Your task to perform on an android device: Is it going to rain today? Image 0: 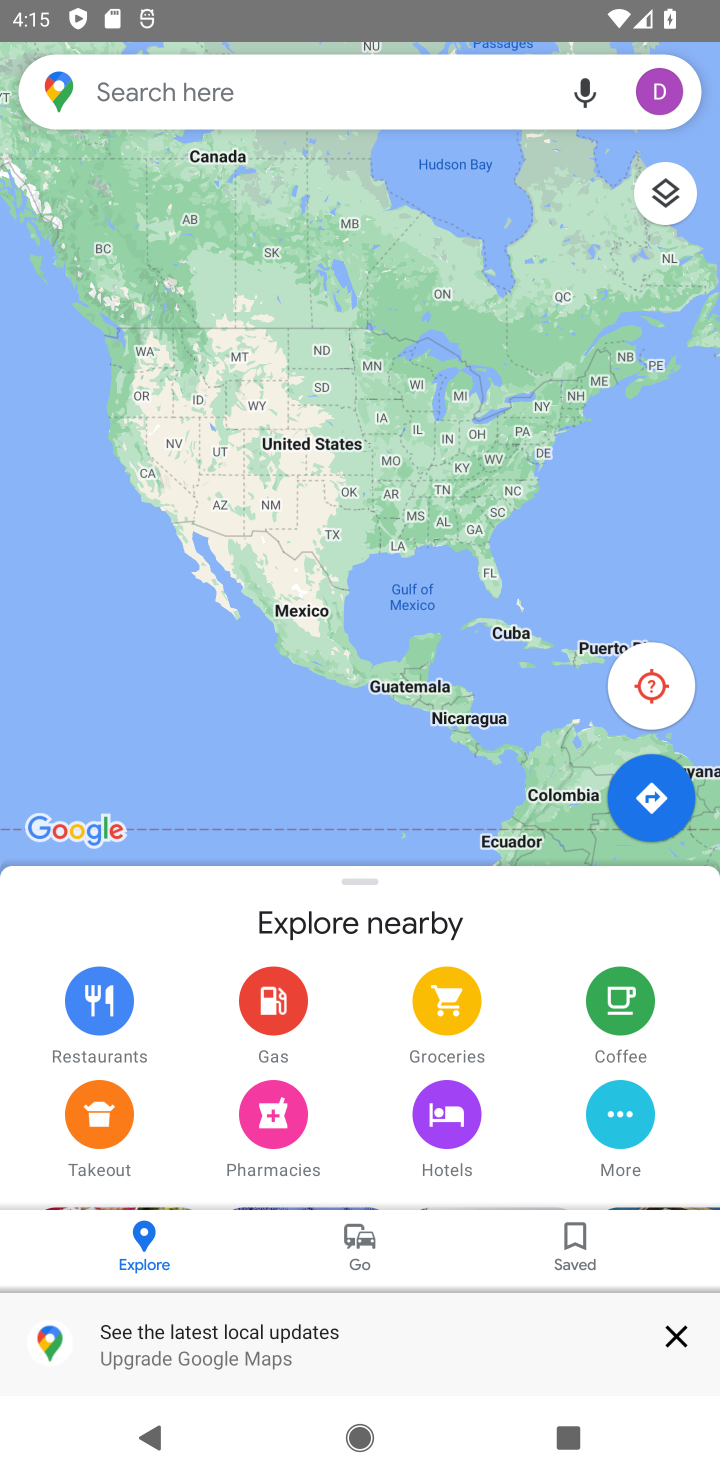
Step 0: press home button
Your task to perform on an android device: Is it going to rain today? Image 1: 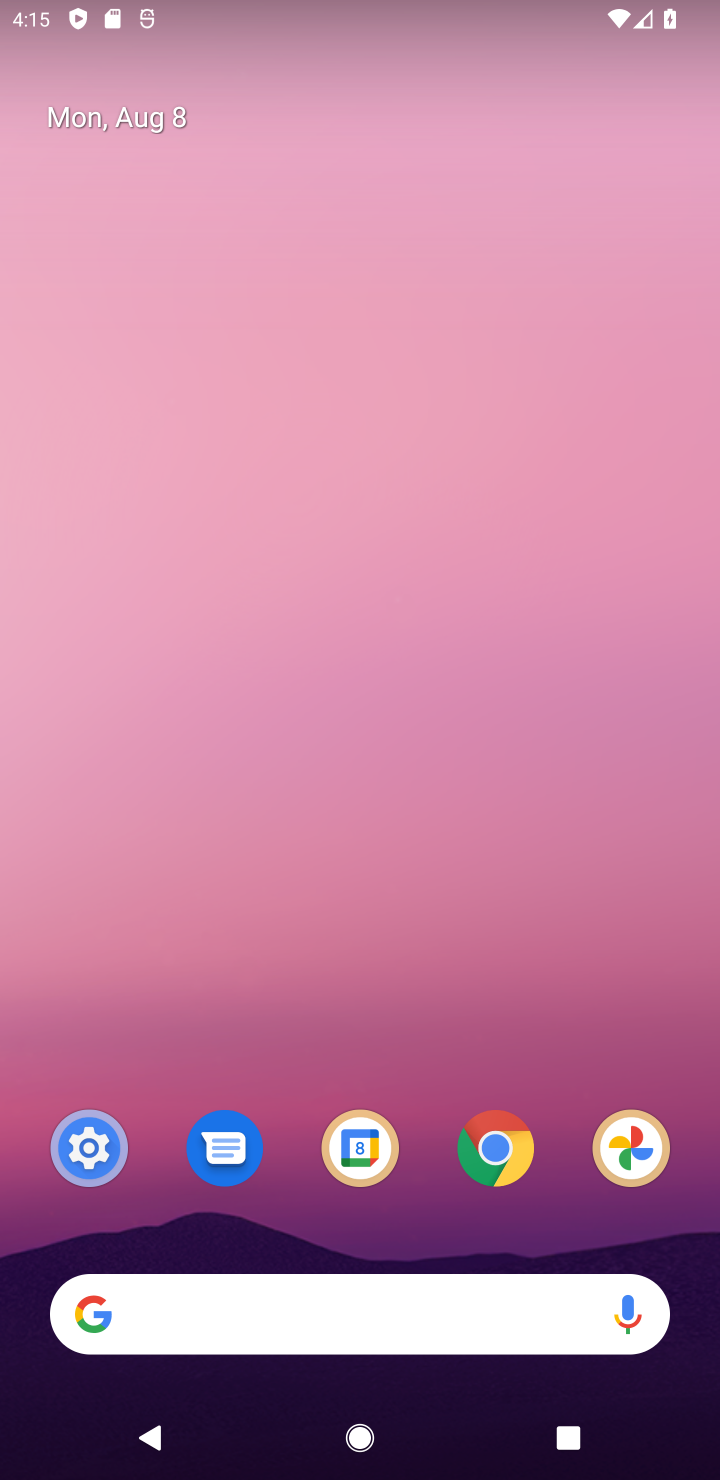
Step 1: drag from (244, 1178) to (196, 8)
Your task to perform on an android device: Is it going to rain today? Image 2: 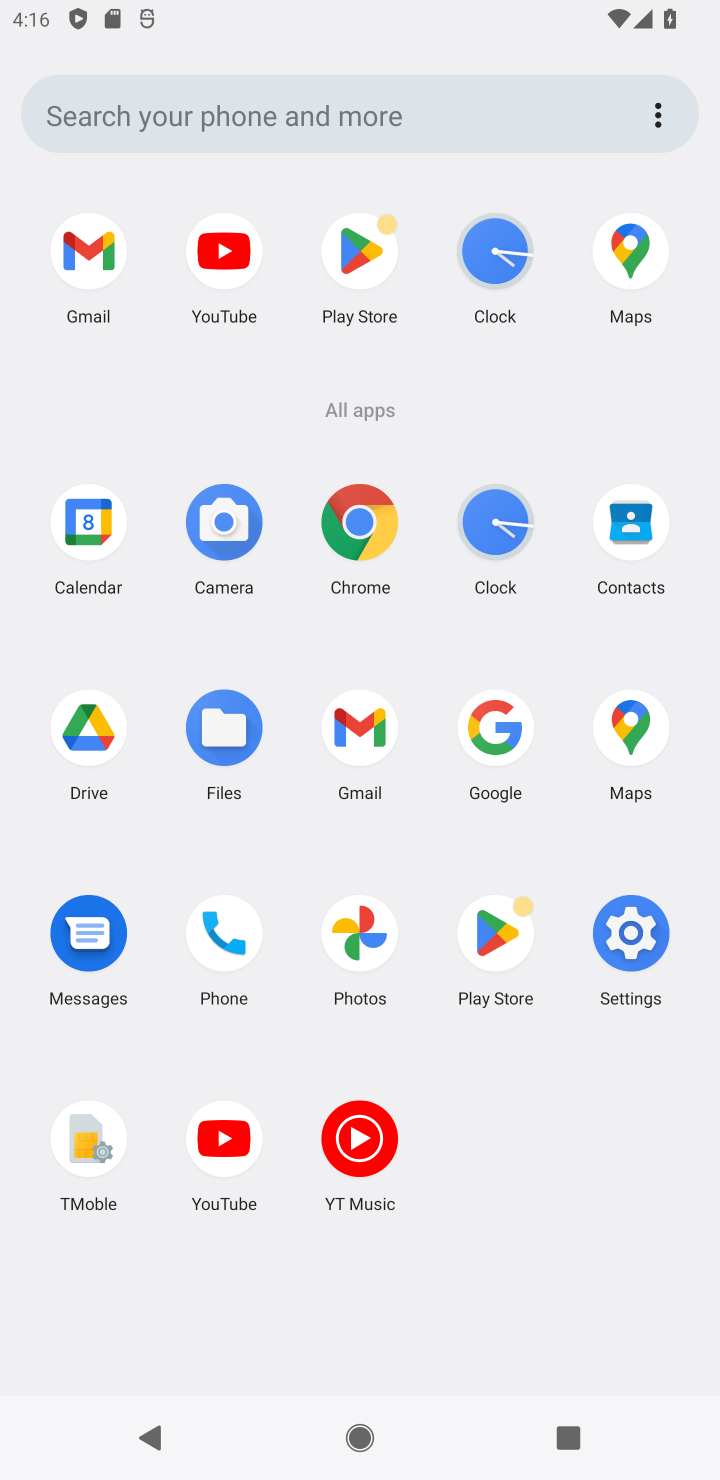
Step 2: click (522, 729)
Your task to perform on an android device: Is it going to rain today? Image 3: 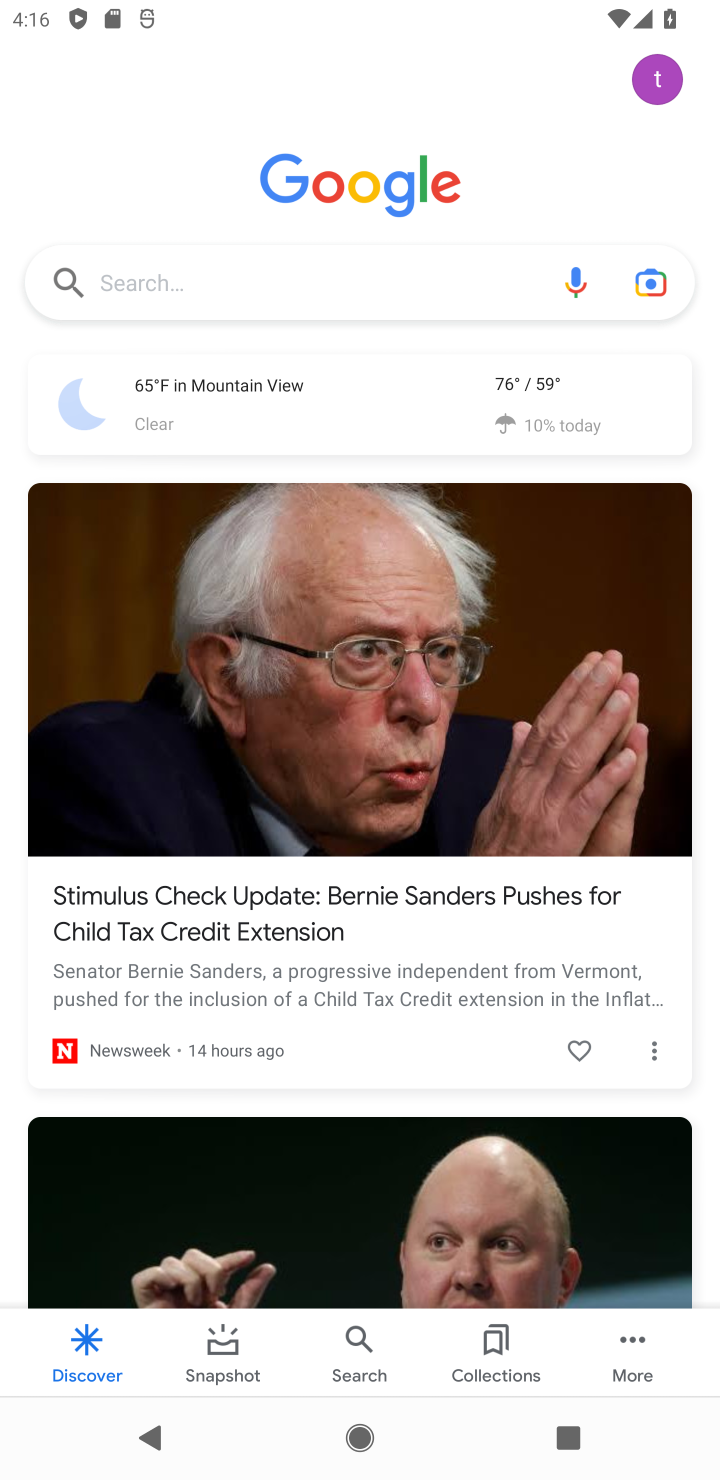
Step 3: click (190, 450)
Your task to perform on an android device: Is it going to rain today? Image 4: 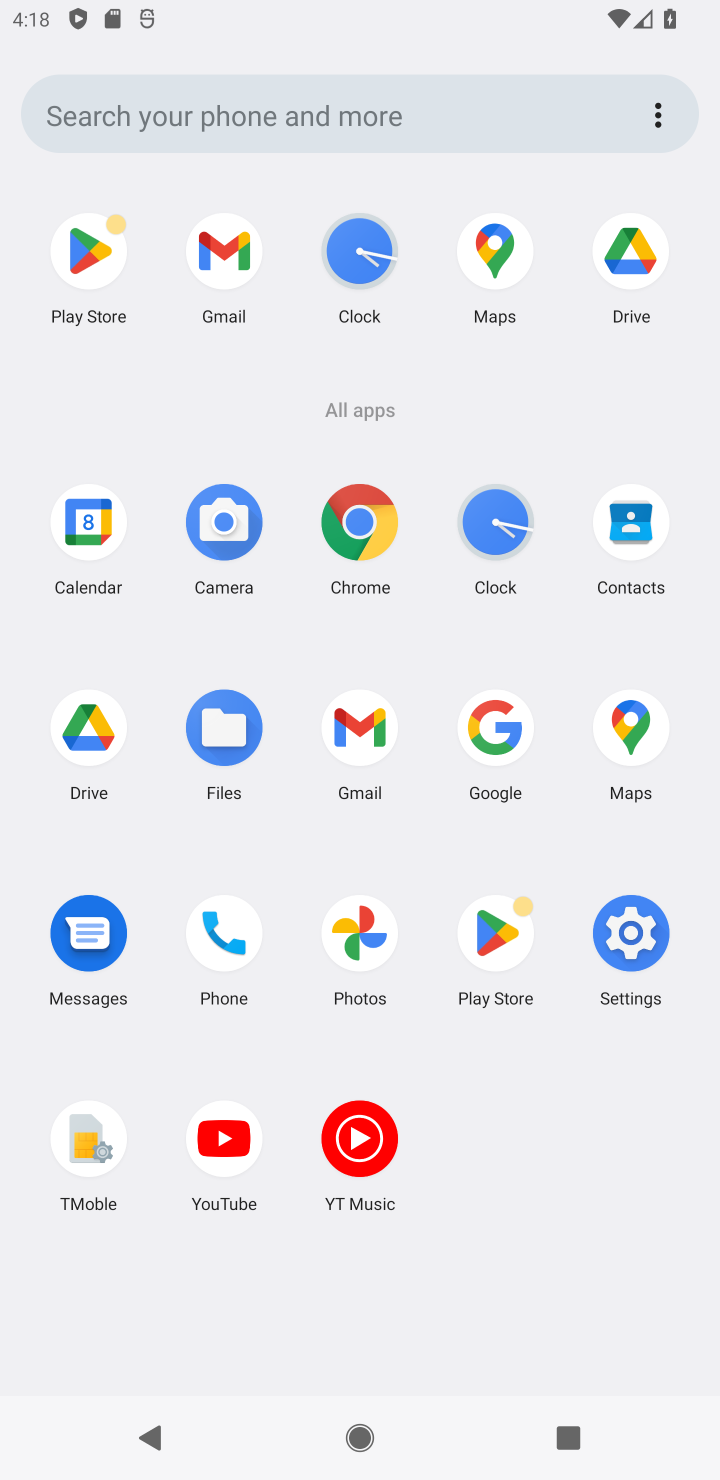
Step 4: click (481, 759)
Your task to perform on an android device: Is it going to rain today? Image 5: 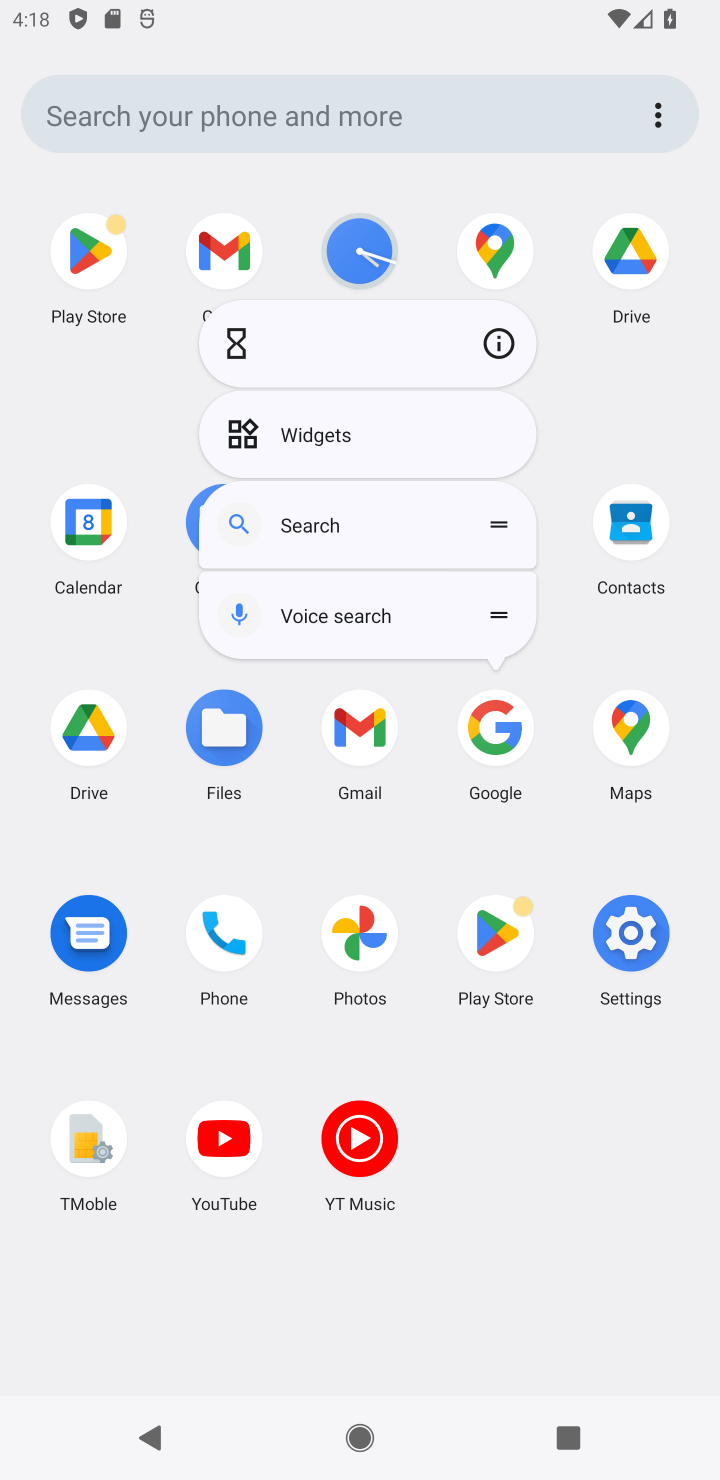
Step 5: click (488, 762)
Your task to perform on an android device: Is it going to rain today? Image 6: 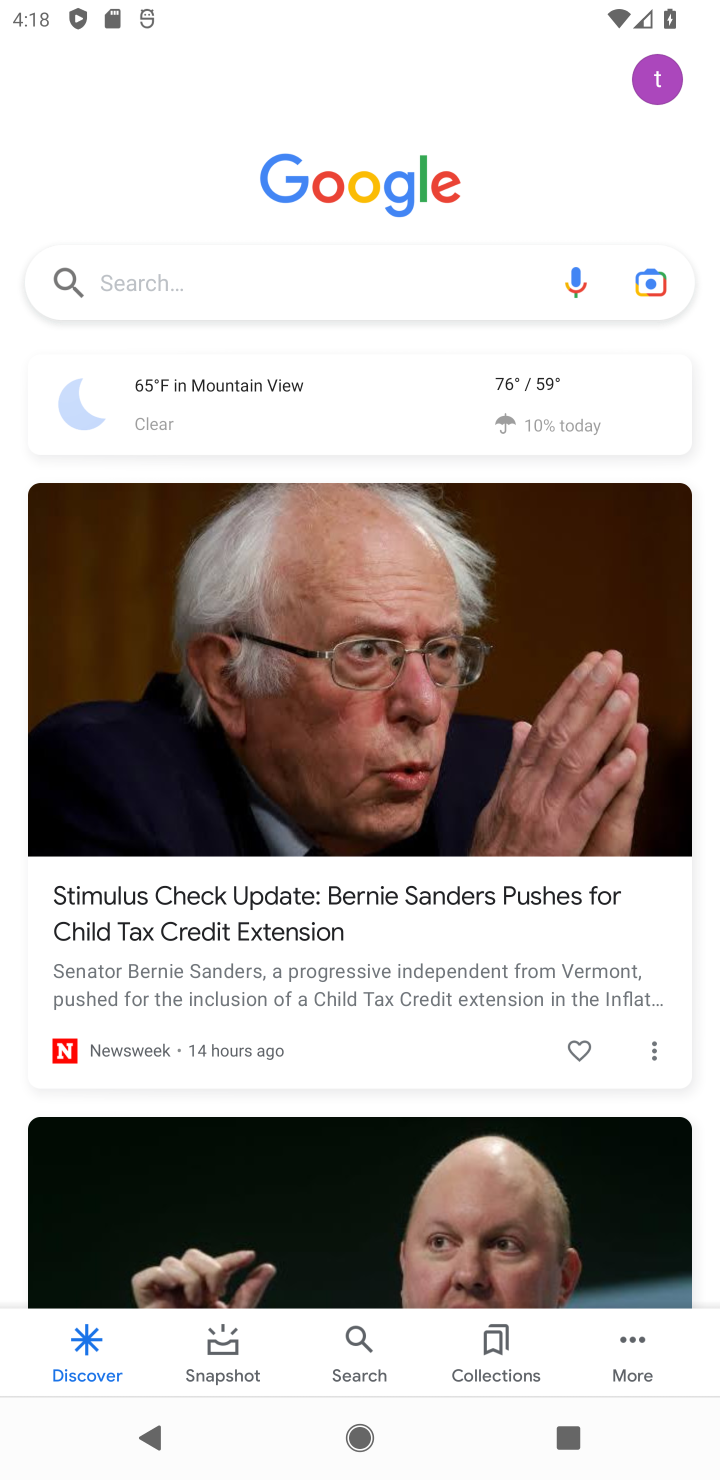
Step 6: click (129, 391)
Your task to perform on an android device: Is it going to rain today? Image 7: 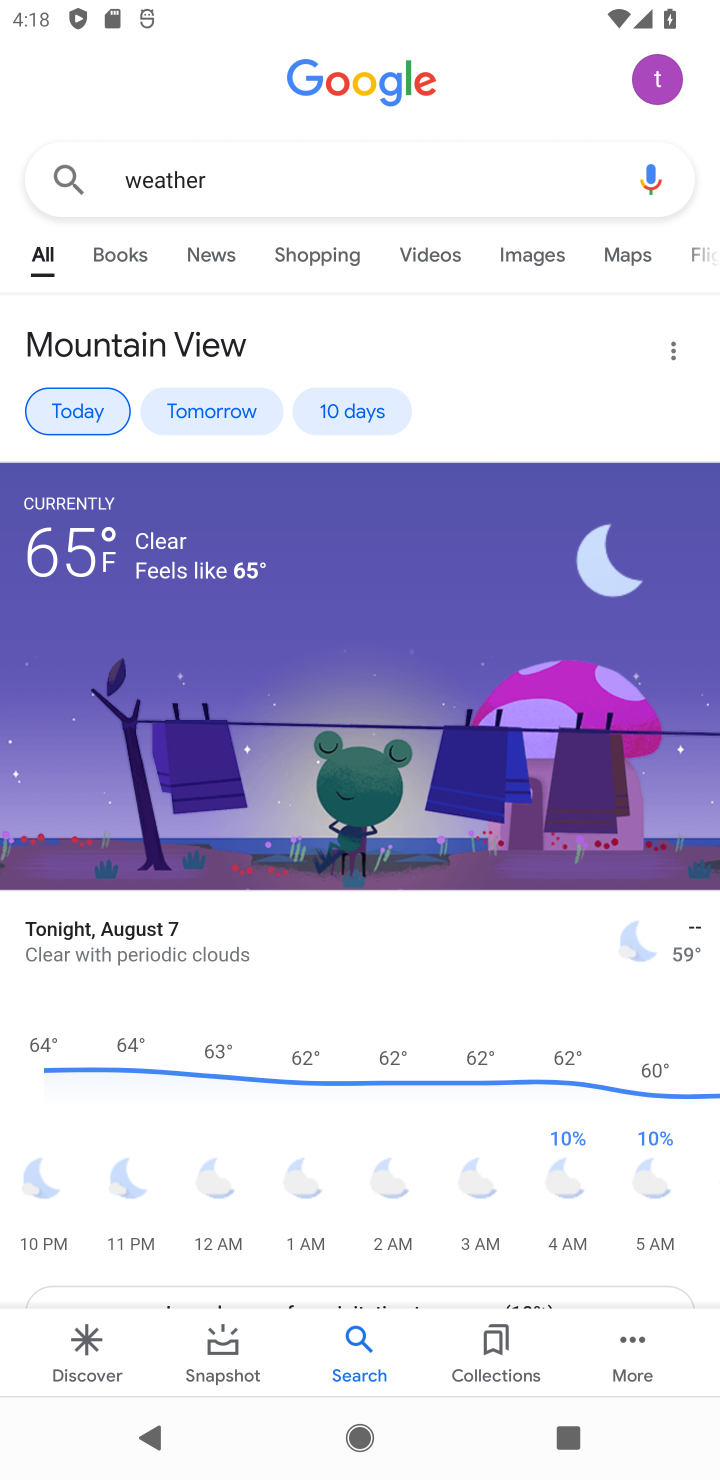
Step 7: task complete